Your task to perform on an android device: set default search engine in the chrome app Image 0: 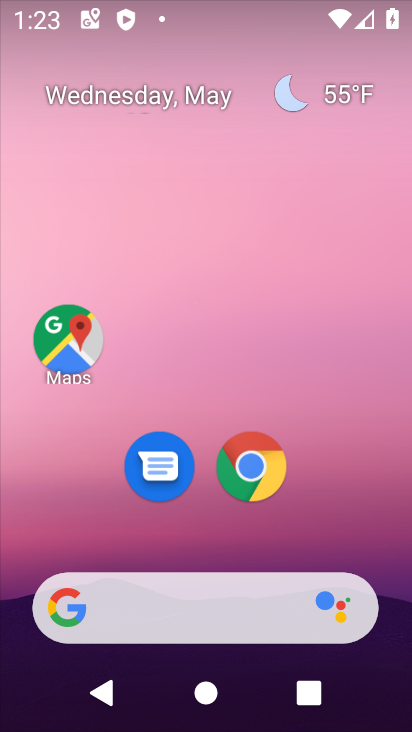
Step 0: click (246, 470)
Your task to perform on an android device: set default search engine in the chrome app Image 1: 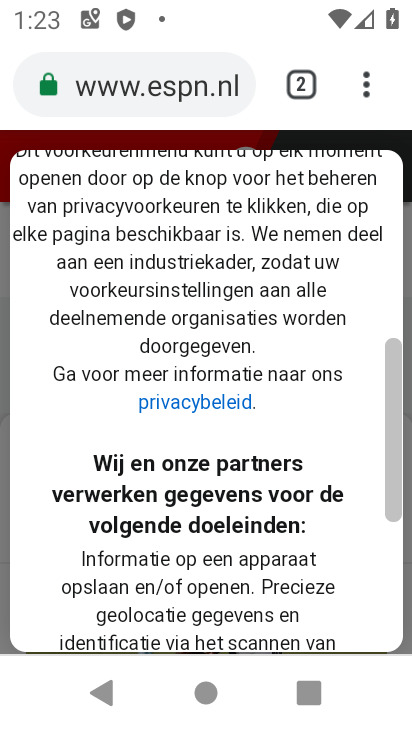
Step 1: click (364, 89)
Your task to perform on an android device: set default search engine in the chrome app Image 2: 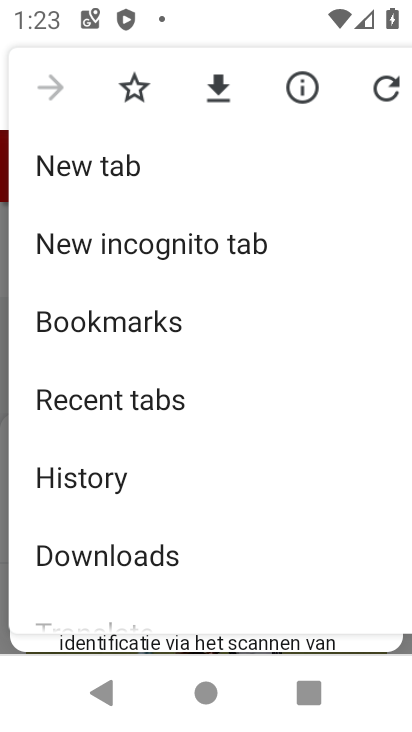
Step 2: drag from (206, 561) to (266, 313)
Your task to perform on an android device: set default search engine in the chrome app Image 3: 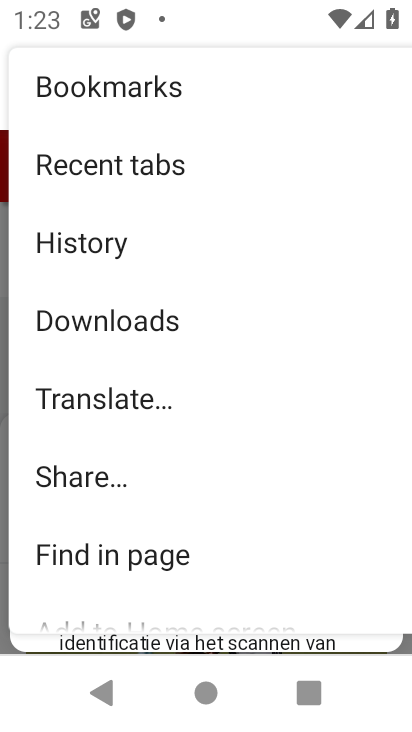
Step 3: drag from (128, 583) to (160, 218)
Your task to perform on an android device: set default search engine in the chrome app Image 4: 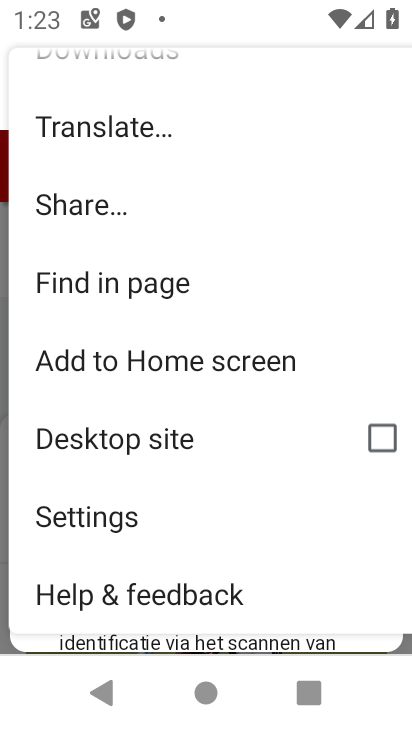
Step 4: click (89, 509)
Your task to perform on an android device: set default search engine in the chrome app Image 5: 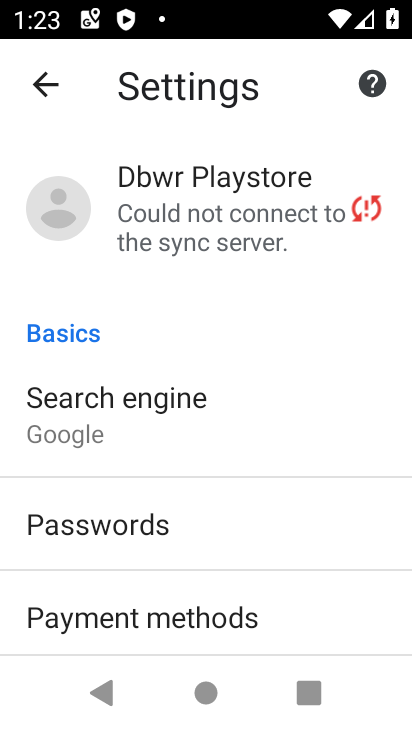
Step 5: click (163, 426)
Your task to perform on an android device: set default search engine in the chrome app Image 6: 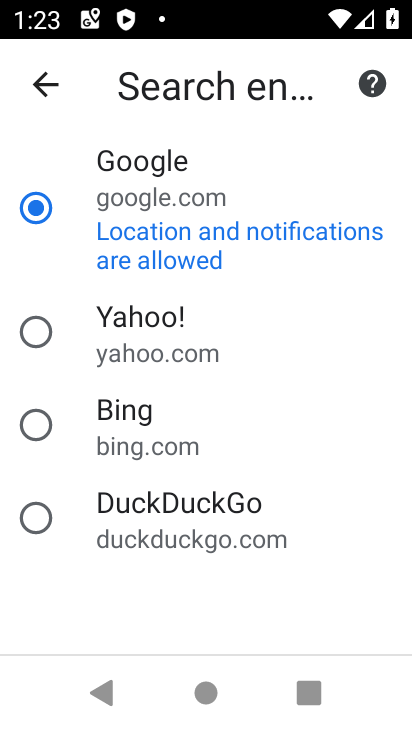
Step 6: click (184, 361)
Your task to perform on an android device: set default search engine in the chrome app Image 7: 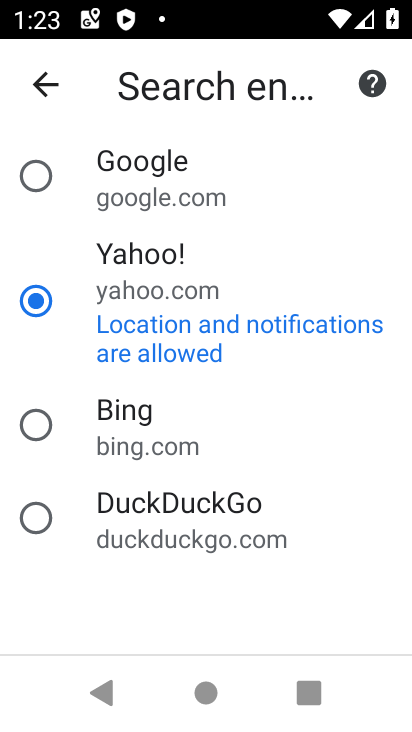
Step 7: task complete